Your task to perform on an android device: allow cookies in the chrome app Image 0: 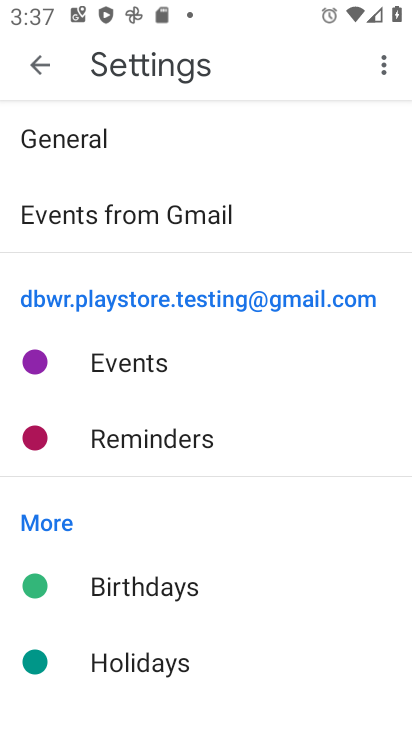
Step 0: press home button
Your task to perform on an android device: allow cookies in the chrome app Image 1: 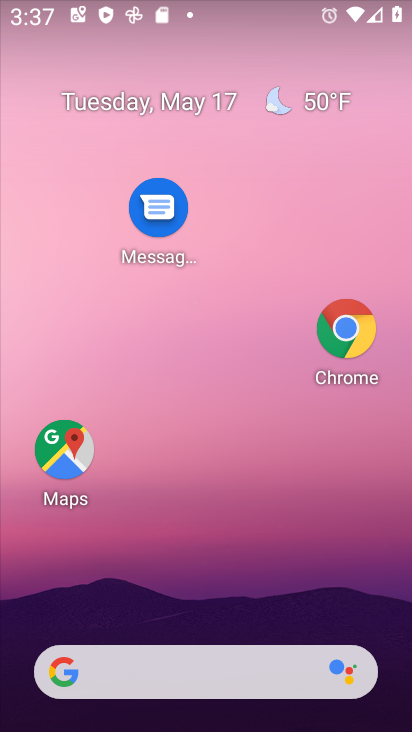
Step 1: click (254, 548)
Your task to perform on an android device: allow cookies in the chrome app Image 2: 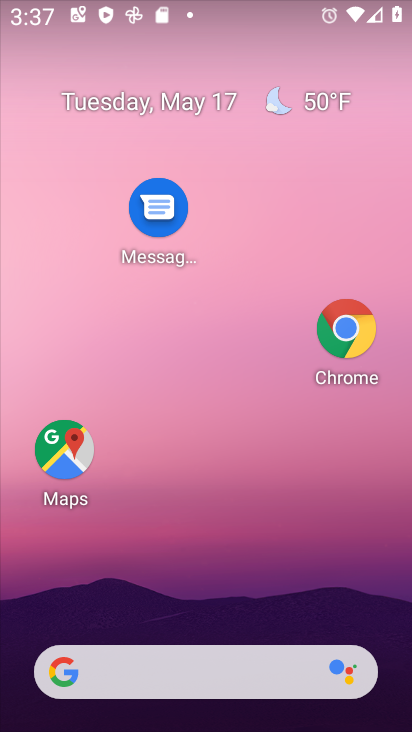
Step 2: click (329, 374)
Your task to perform on an android device: allow cookies in the chrome app Image 3: 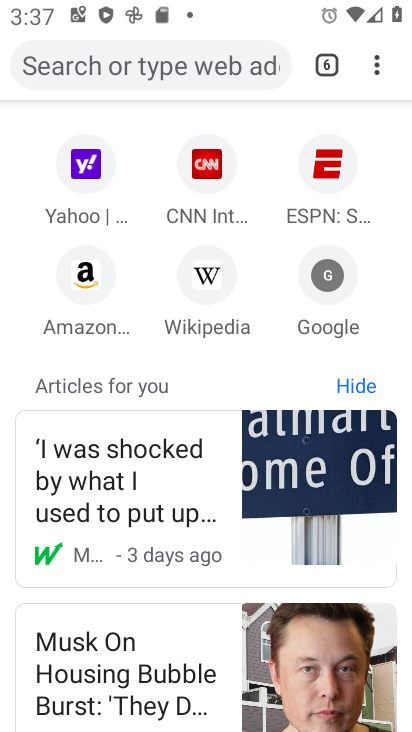
Step 3: click (379, 76)
Your task to perform on an android device: allow cookies in the chrome app Image 4: 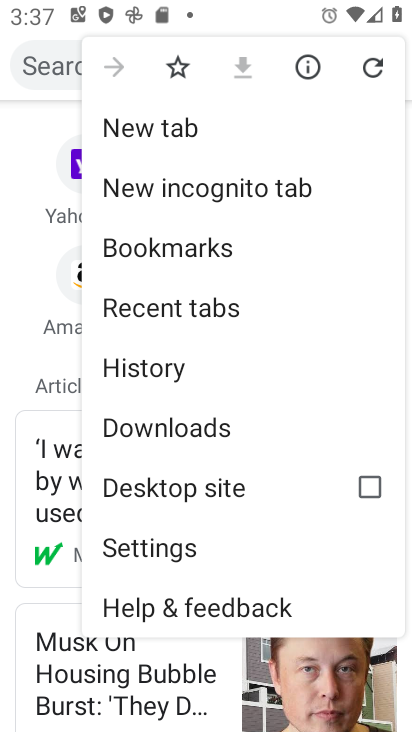
Step 4: drag from (186, 467) to (248, 258)
Your task to perform on an android device: allow cookies in the chrome app Image 5: 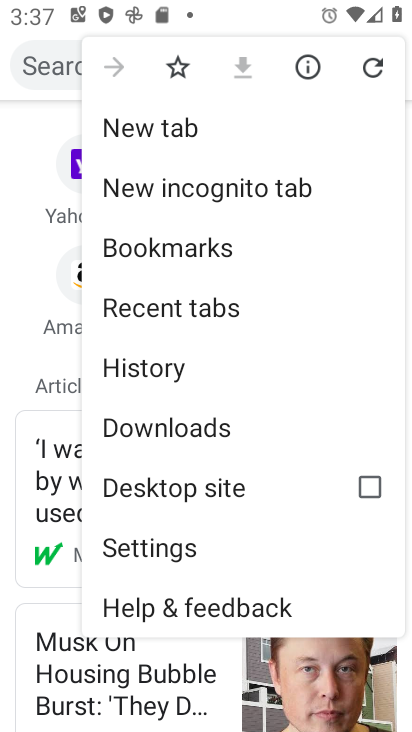
Step 5: click (173, 534)
Your task to perform on an android device: allow cookies in the chrome app Image 6: 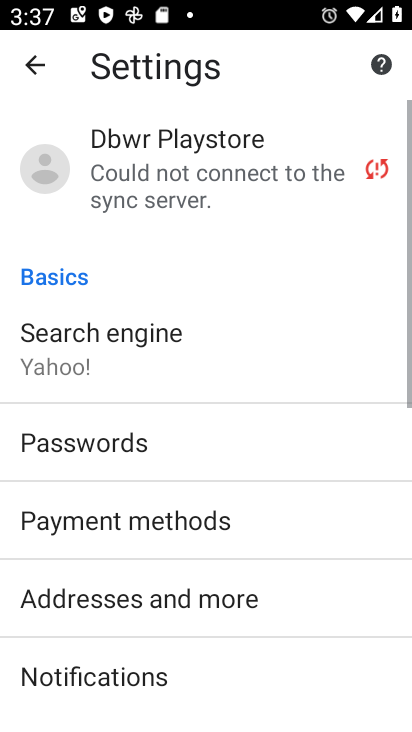
Step 6: drag from (173, 534) to (260, 240)
Your task to perform on an android device: allow cookies in the chrome app Image 7: 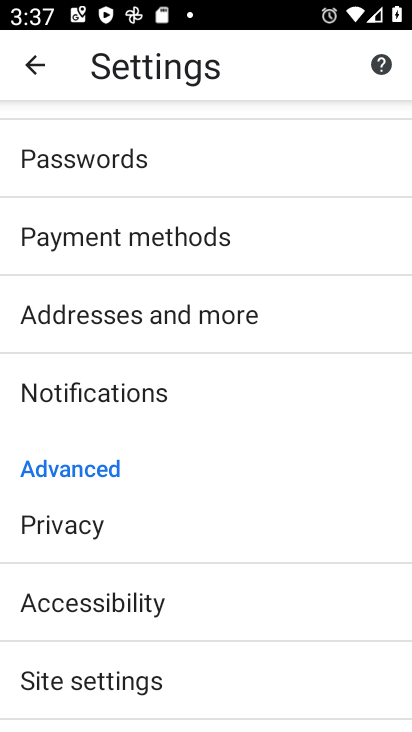
Step 7: drag from (152, 584) to (273, 323)
Your task to perform on an android device: allow cookies in the chrome app Image 8: 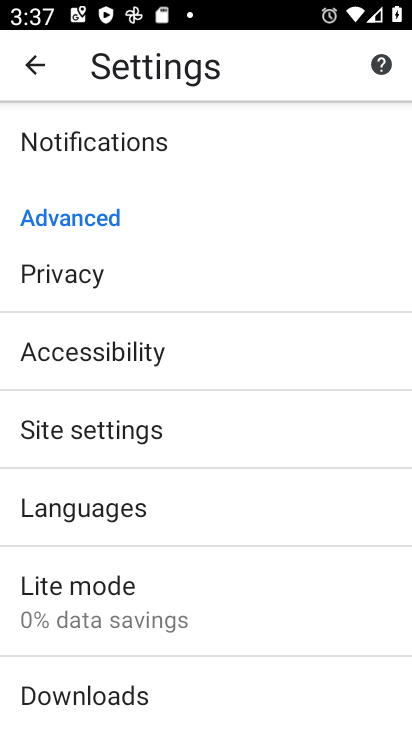
Step 8: click (200, 446)
Your task to perform on an android device: allow cookies in the chrome app Image 9: 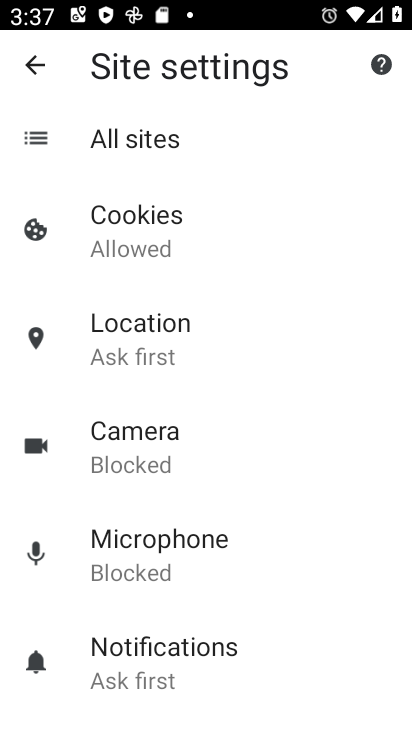
Step 9: task complete